Your task to perform on an android device: turn off sleep mode Image 0: 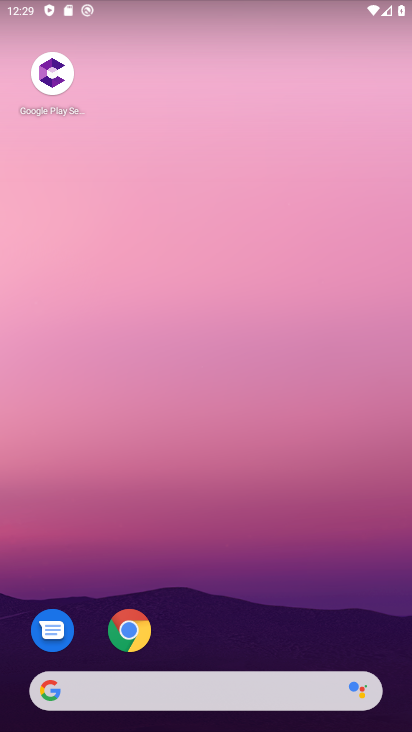
Step 0: drag from (353, 610) to (308, 91)
Your task to perform on an android device: turn off sleep mode Image 1: 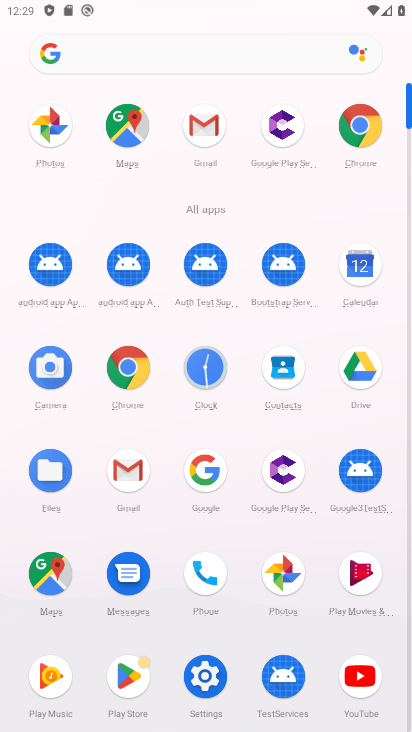
Step 1: click (206, 674)
Your task to perform on an android device: turn off sleep mode Image 2: 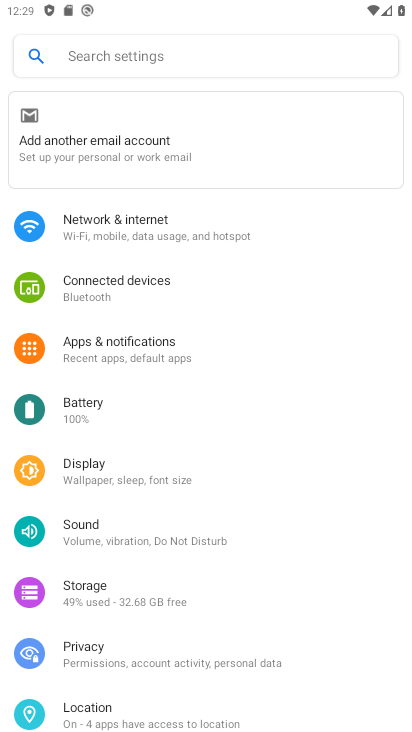
Step 2: click (93, 477)
Your task to perform on an android device: turn off sleep mode Image 3: 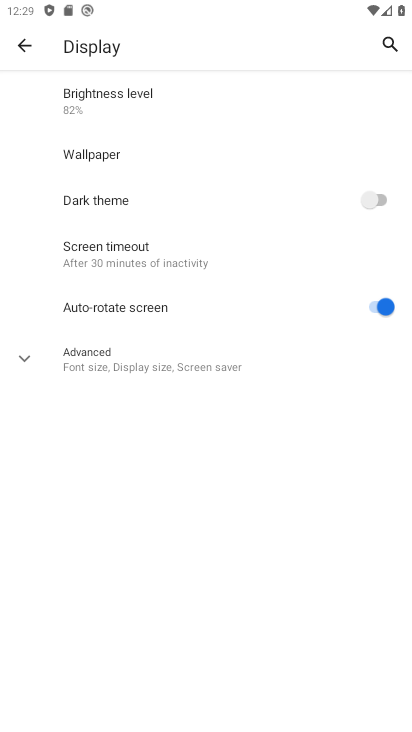
Step 3: click (35, 359)
Your task to perform on an android device: turn off sleep mode Image 4: 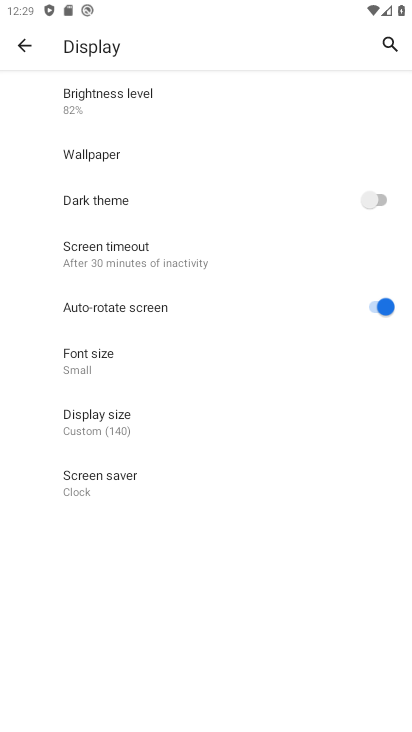
Step 4: task complete